Your task to perform on an android device: change the clock display to show seconds Image 0: 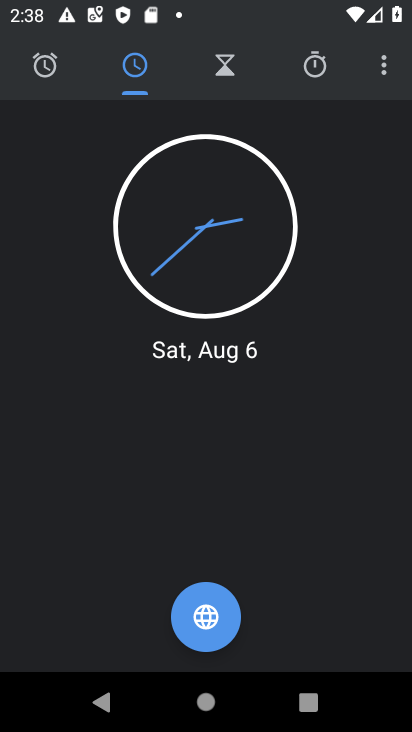
Step 0: click (390, 73)
Your task to perform on an android device: change the clock display to show seconds Image 1: 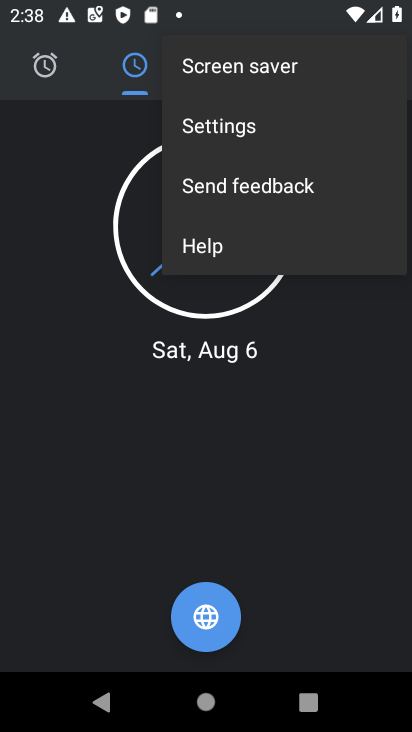
Step 1: click (260, 118)
Your task to perform on an android device: change the clock display to show seconds Image 2: 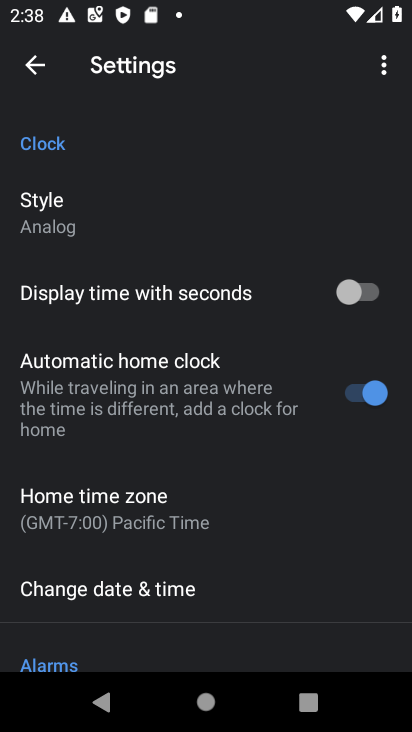
Step 2: click (348, 308)
Your task to perform on an android device: change the clock display to show seconds Image 3: 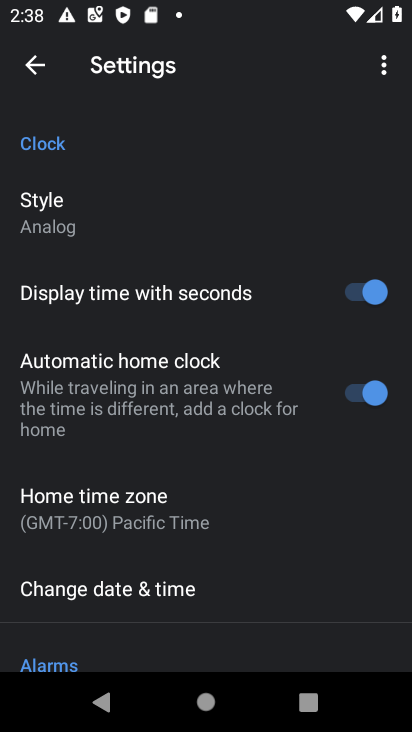
Step 3: task complete